Your task to perform on an android device: Check the weather Image 0: 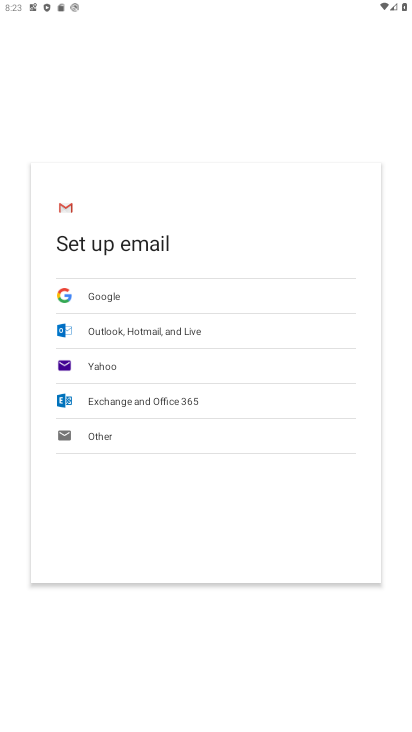
Step 0: press home button
Your task to perform on an android device: Check the weather Image 1: 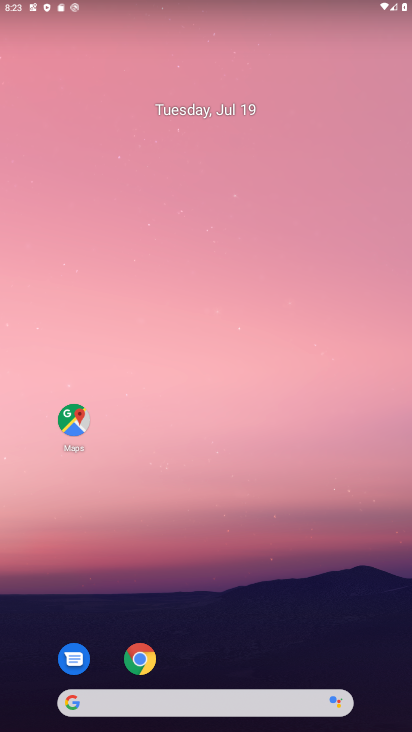
Step 1: drag from (125, 691) to (250, 264)
Your task to perform on an android device: Check the weather Image 2: 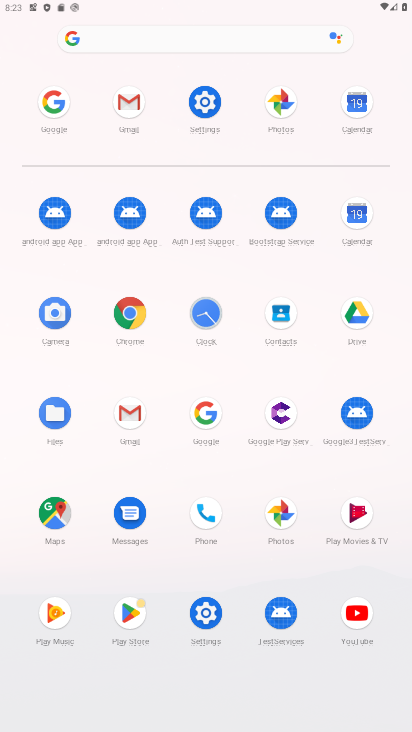
Step 2: click (214, 412)
Your task to perform on an android device: Check the weather Image 3: 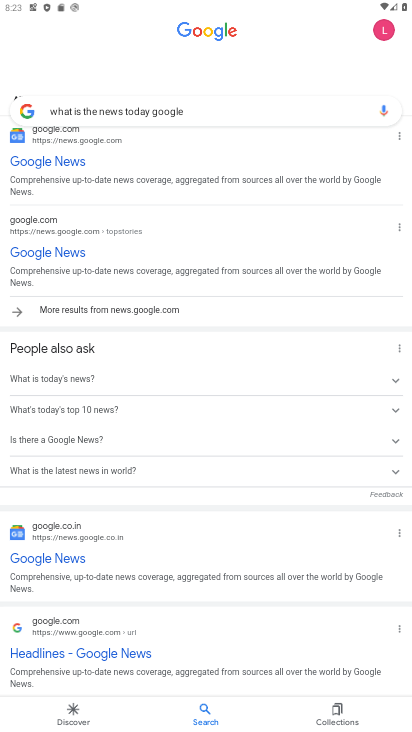
Step 3: click (138, 110)
Your task to perform on an android device: Check the weather Image 4: 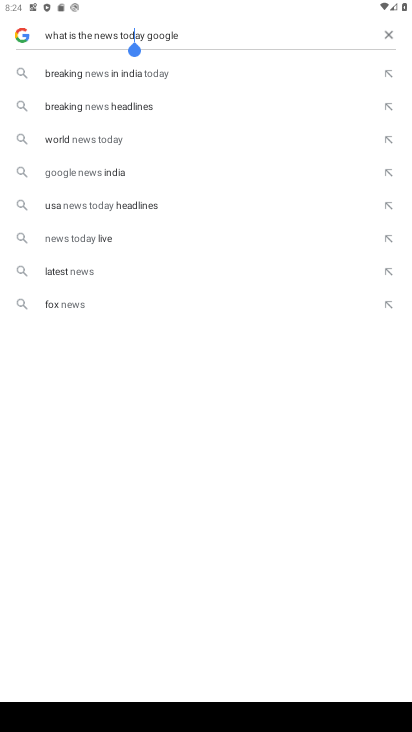
Step 4: click (387, 32)
Your task to perform on an android device: Check the weather Image 5: 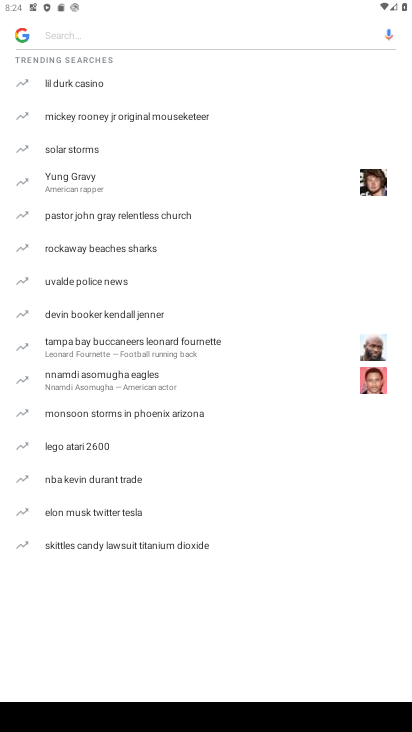
Step 5: type "Check the weather"
Your task to perform on an android device: Check the weather Image 6: 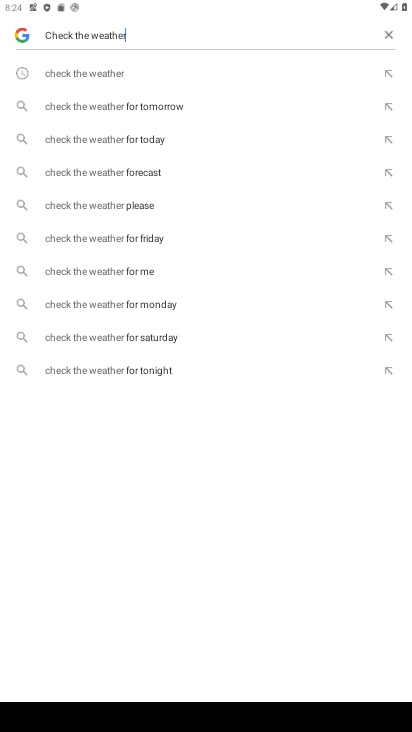
Step 6: click (70, 79)
Your task to perform on an android device: Check the weather Image 7: 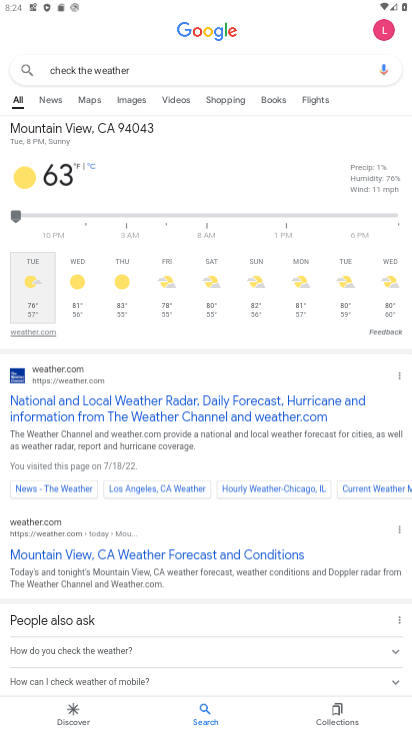
Step 7: task complete